Your task to perform on an android device: change your default location settings in chrome Image 0: 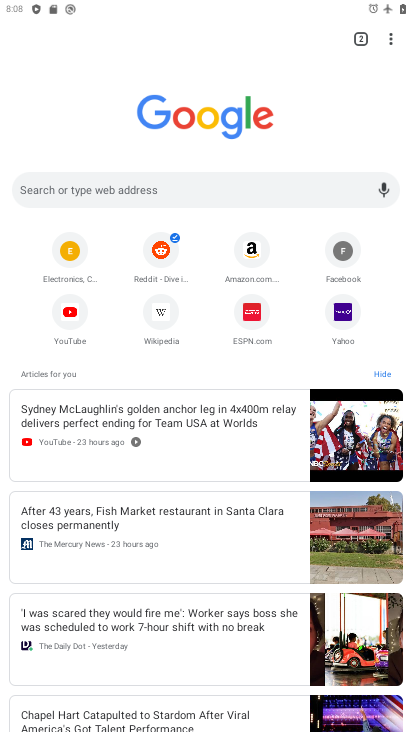
Step 0: click (392, 41)
Your task to perform on an android device: change your default location settings in chrome Image 1: 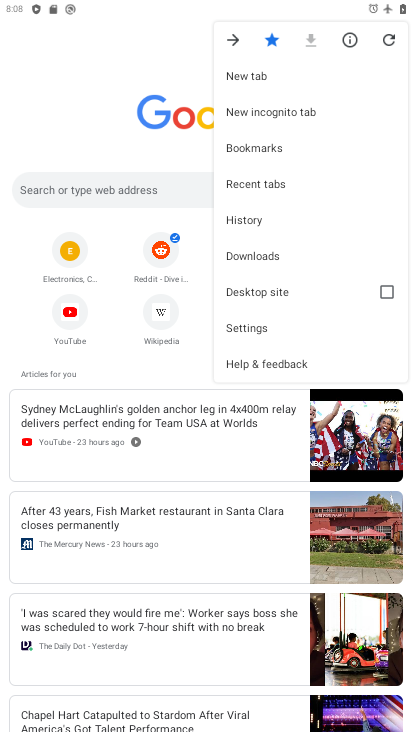
Step 1: click (257, 330)
Your task to perform on an android device: change your default location settings in chrome Image 2: 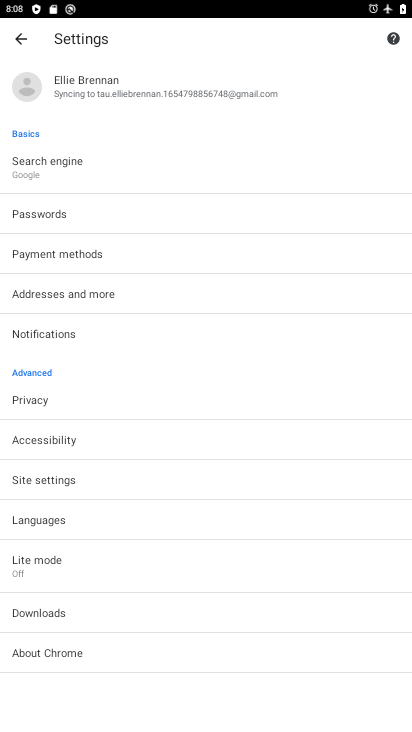
Step 2: click (64, 484)
Your task to perform on an android device: change your default location settings in chrome Image 3: 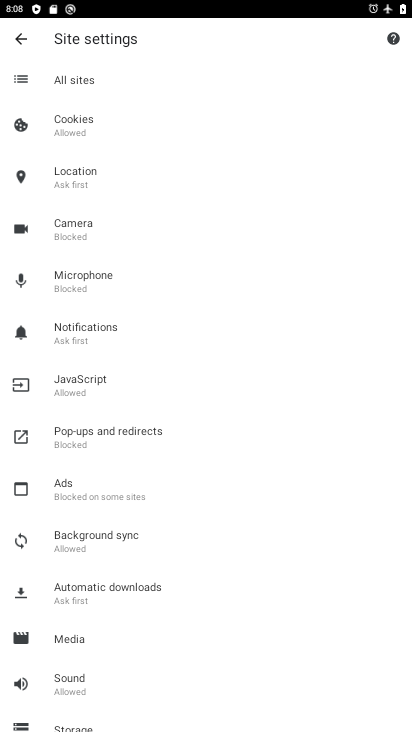
Step 3: drag from (105, 660) to (114, 514)
Your task to perform on an android device: change your default location settings in chrome Image 4: 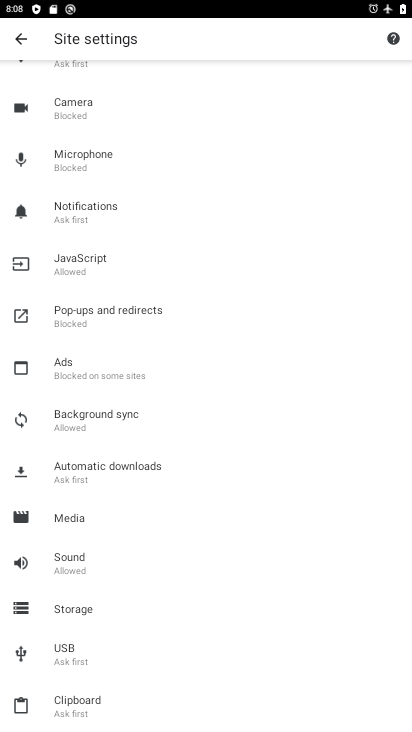
Step 4: drag from (110, 258) to (97, 469)
Your task to perform on an android device: change your default location settings in chrome Image 5: 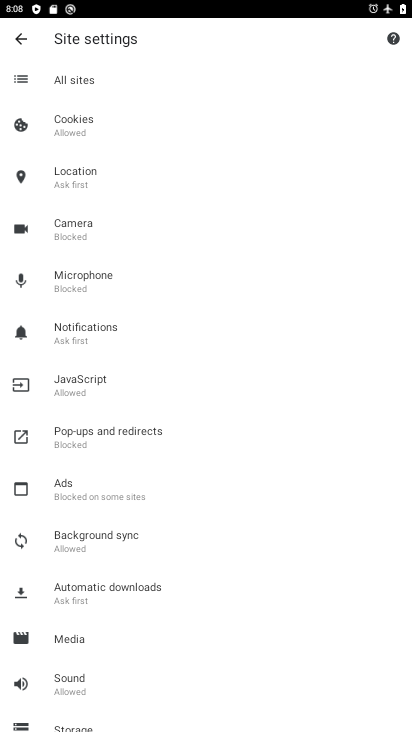
Step 5: click (83, 178)
Your task to perform on an android device: change your default location settings in chrome Image 6: 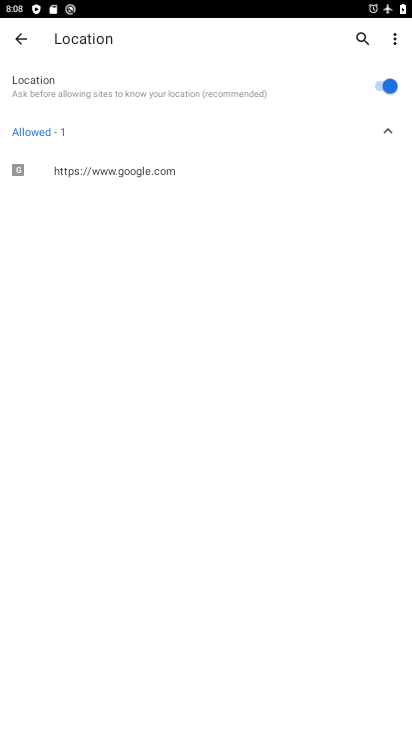
Step 6: click (386, 91)
Your task to perform on an android device: change your default location settings in chrome Image 7: 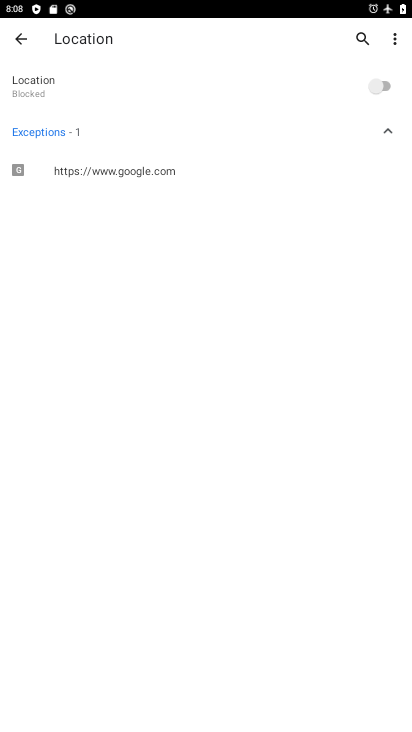
Step 7: task complete